Your task to perform on an android device: Set the phone to "Do not disturb". Image 0: 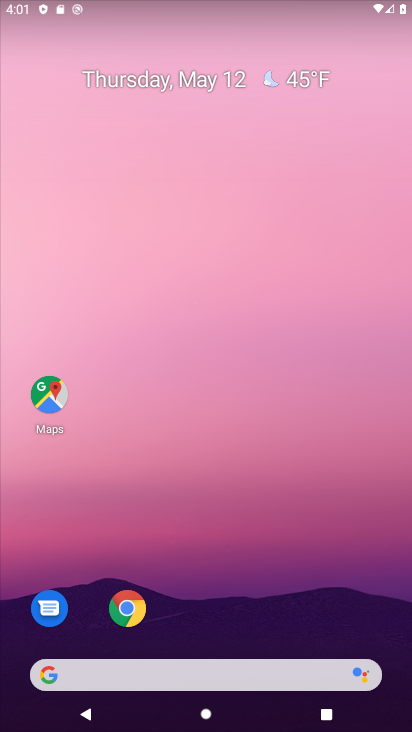
Step 0: drag from (348, 598) to (267, 66)
Your task to perform on an android device: Set the phone to "Do not disturb". Image 1: 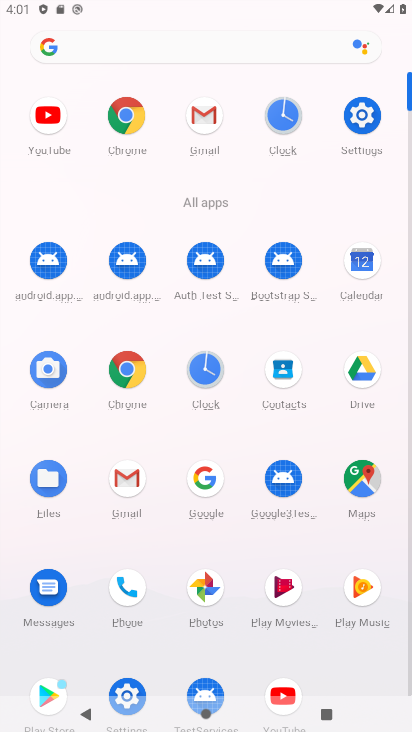
Step 1: click (355, 132)
Your task to perform on an android device: Set the phone to "Do not disturb". Image 2: 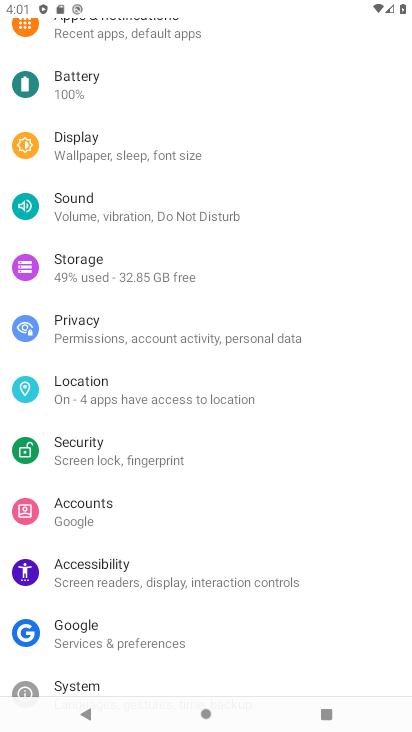
Step 2: click (151, 202)
Your task to perform on an android device: Set the phone to "Do not disturb". Image 3: 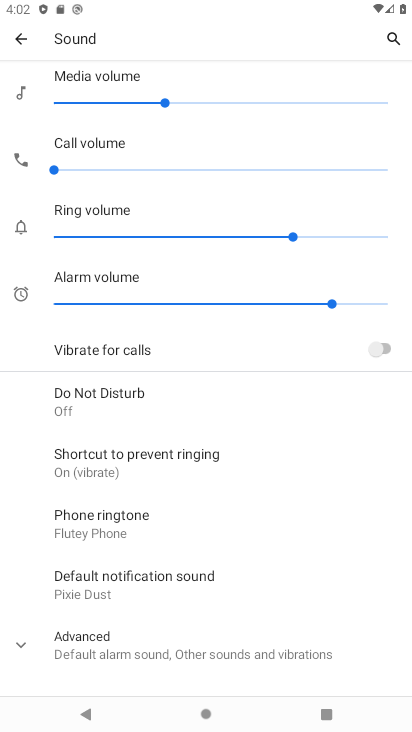
Step 3: click (104, 409)
Your task to perform on an android device: Set the phone to "Do not disturb". Image 4: 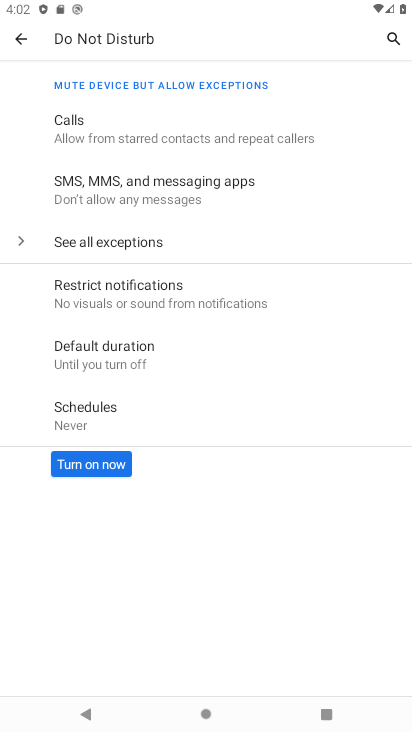
Step 4: click (102, 472)
Your task to perform on an android device: Set the phone to "Do not disturb". Image 5: 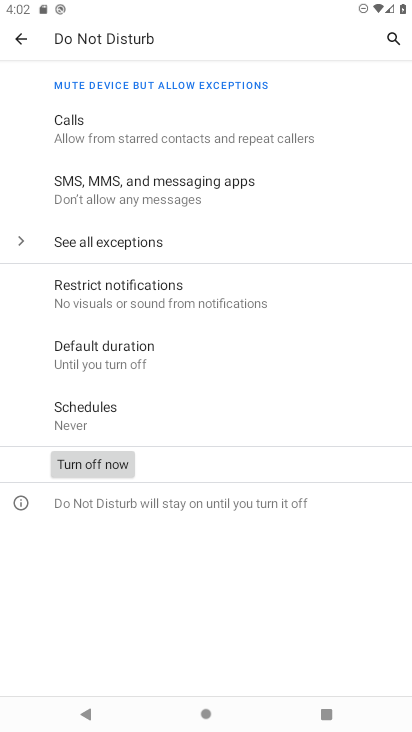
Step 5: task complete